Your task to perform on an android device: What's the weather going to be this weekend? Image 0: 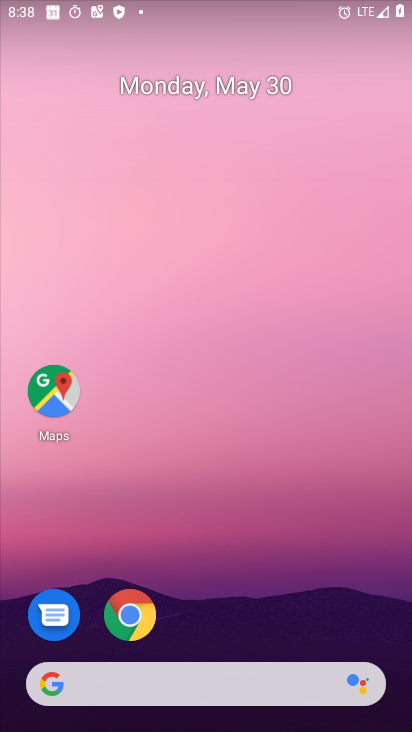
Step 0: drag from (326, 644) to (371, 136)
Your task to perform on an android device: What's the weather going to be this weekend? Image 1: 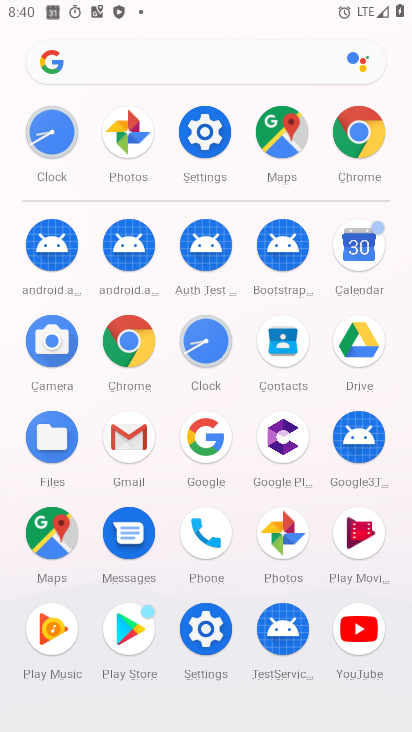
Step 1: press home button
Your task to perform on an android device: What's the weather going to be this weekend? Image 2: 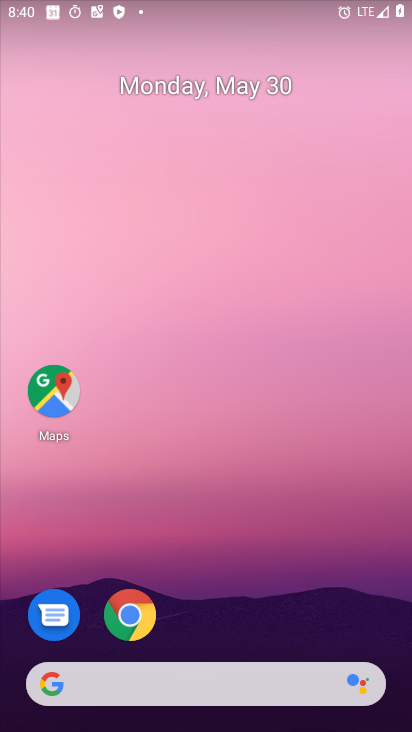
Step 2: click (49, 690)
Your task to perform on an android device: What's the weather going to be this weekend? Image 3: 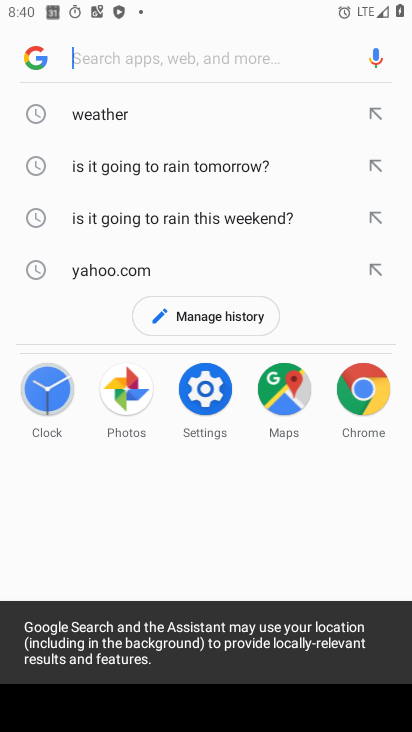
Step 3: click (46, 66)
Your task to perform on an android device: What's the weather going to be this weekend? Image 4: 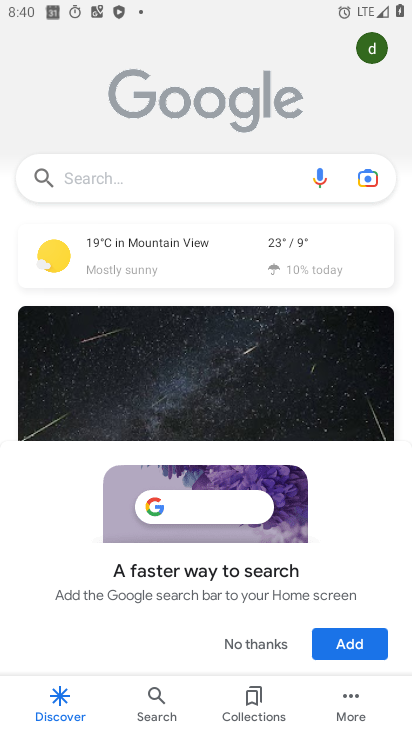
Step 4: click (186, 279)
Your task to perform on an android device: What's the weather going to be this weekend? Image 5: 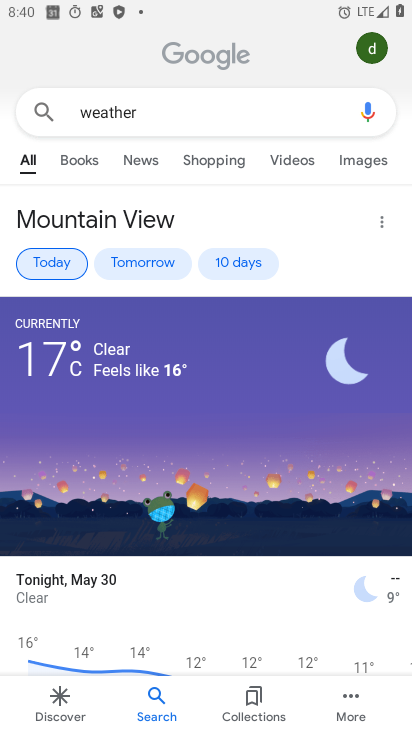
Step 5: click (242, 271)
Your task to perform on an android device: What's the weather going to be this weekend? Image 6: 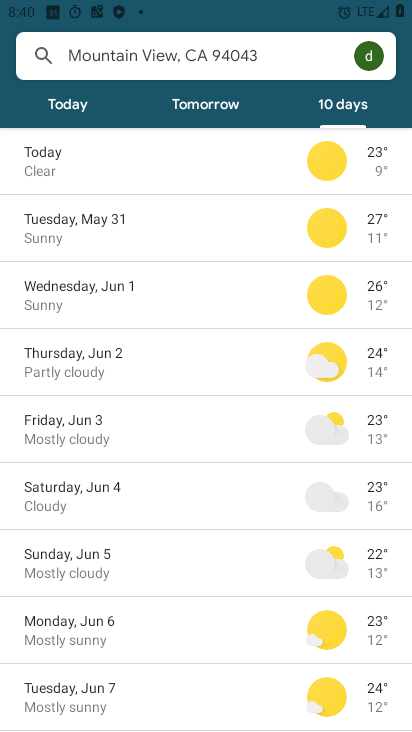
Step 6: task complete